Your task to perform on an android device: uninstall "Google Chat" Image 0: 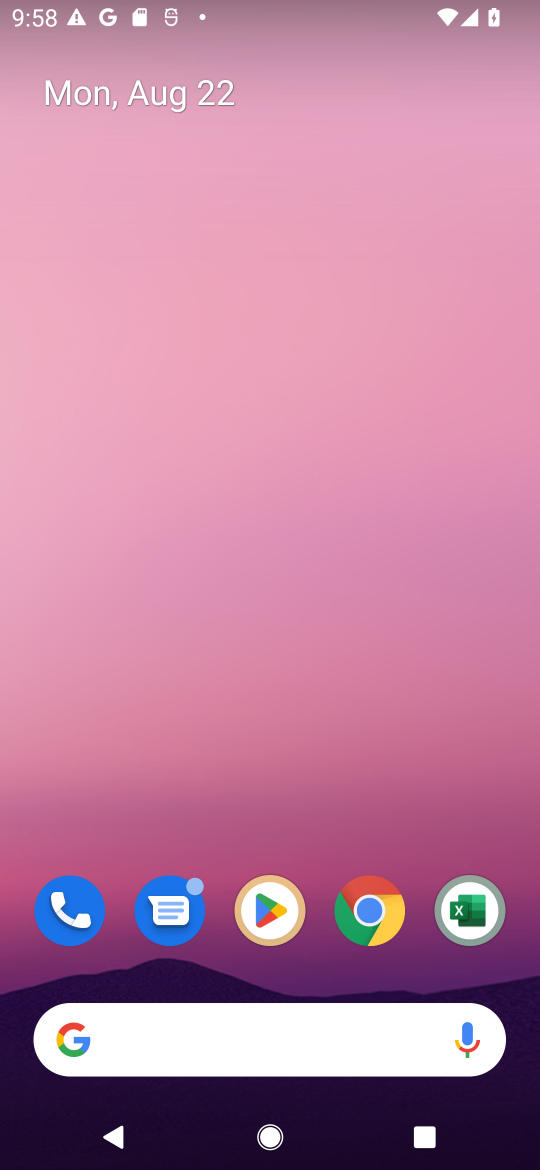
Step 0: click (291, 915)
Your task to perform on an android device: uninstall "Google Chat" Image 1: 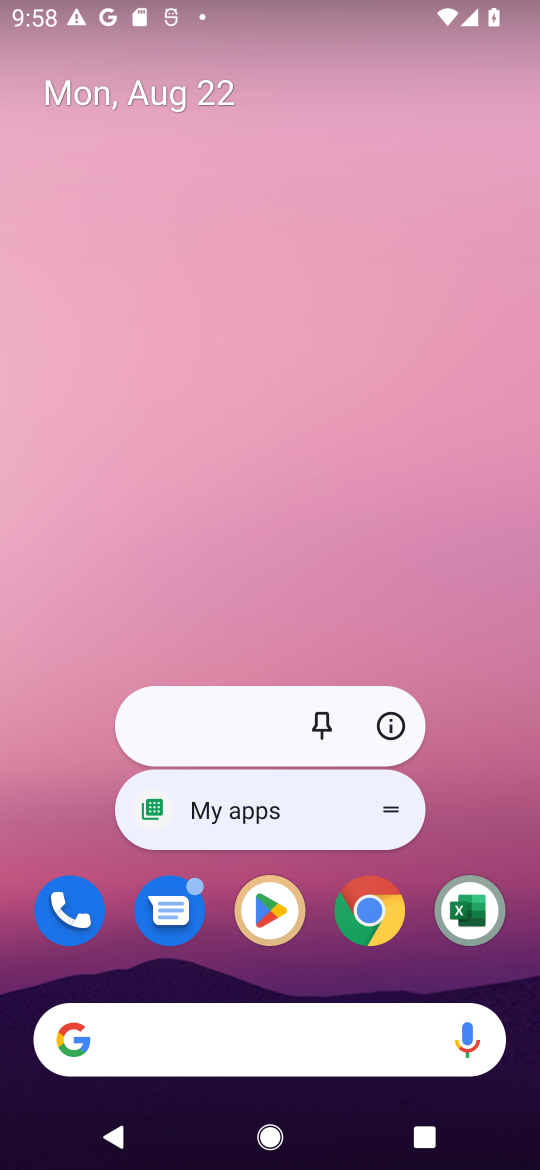
Step 1: click (291, 915)
Your task to perform on an android device: uninstall "Google Chat" Image 2: 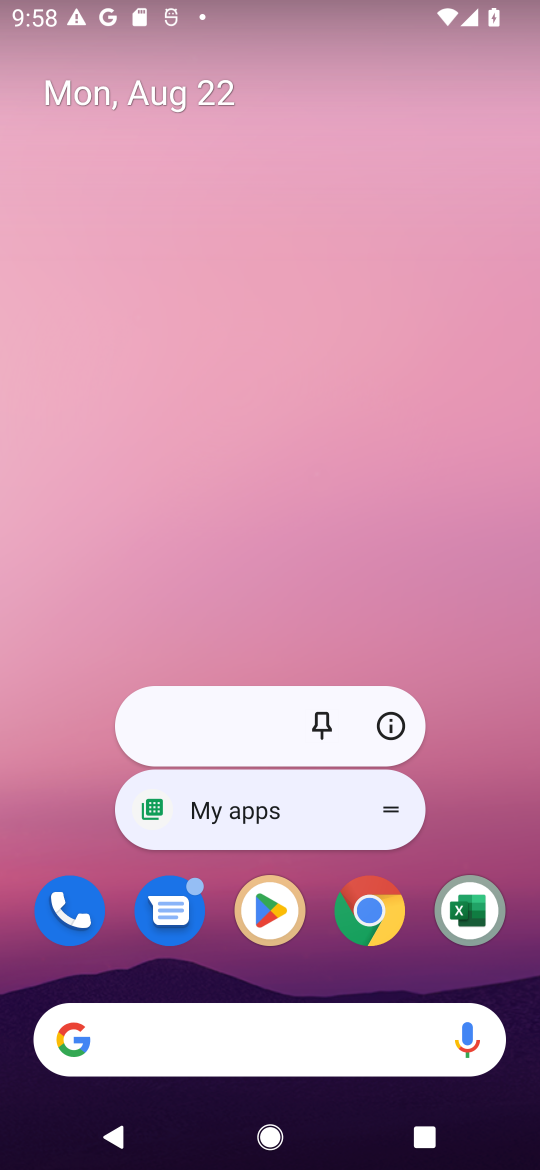
Step 2: click (291, 915)
Your task to perform on an android device: uninstall "Google Chat" Image 3: 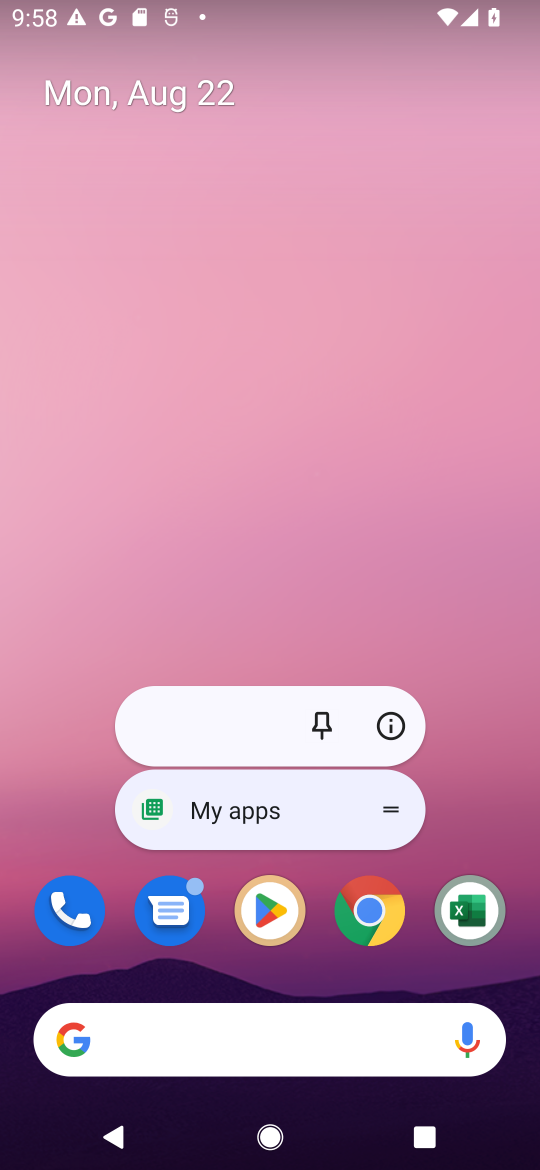
Step 3: click (261, 919)
Your task to perform on an android device: uninstall "Google Chat" Image 4: 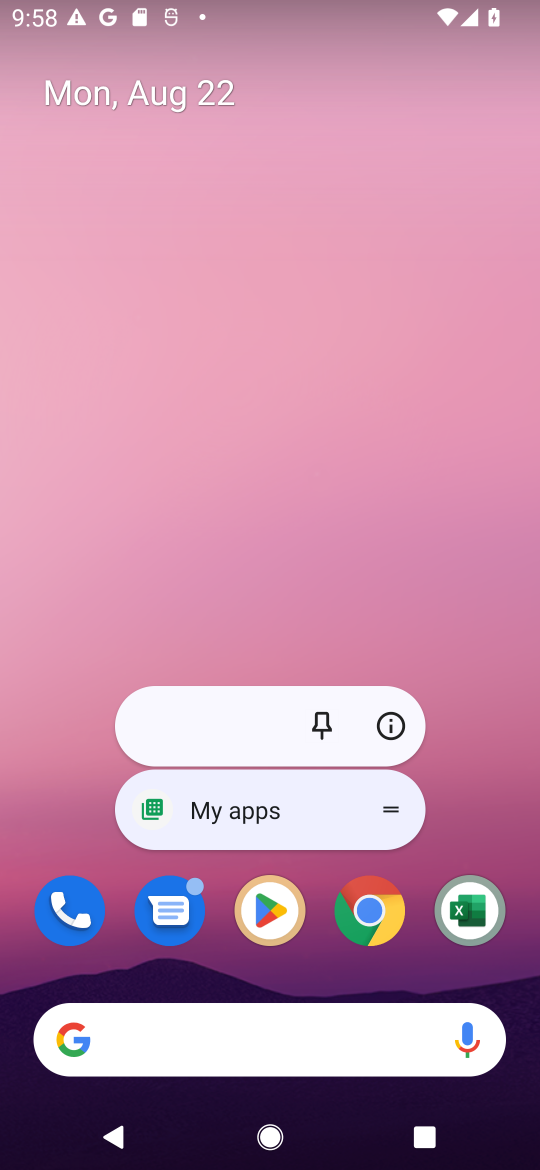
Step 4: click (261, 919)
Your task to perform on an android device: uninstall "Google Chat" Image 5: 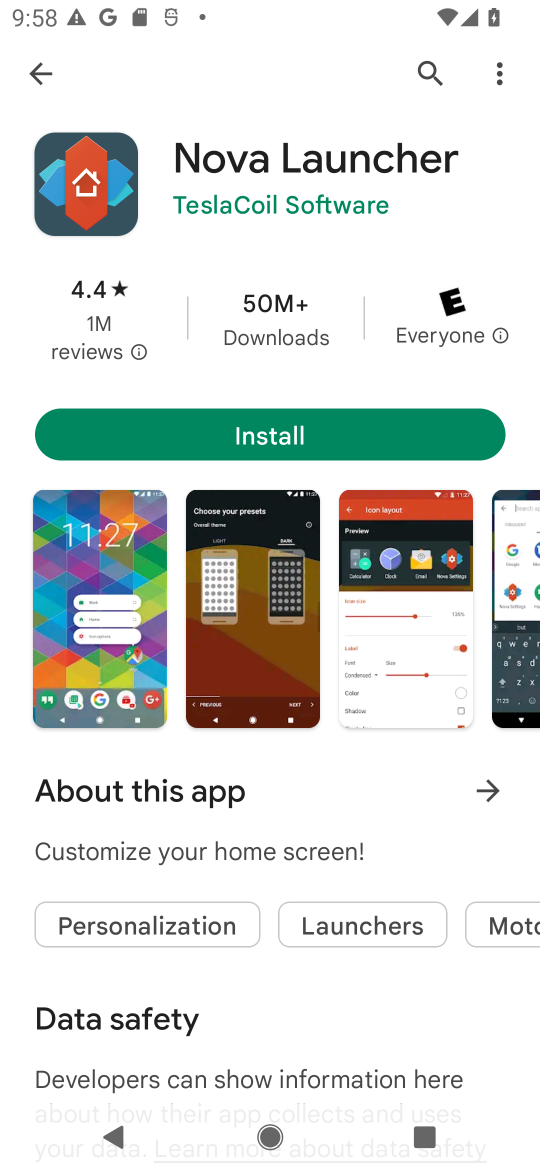
Step 5: click (432, 71)
Your task to perform on an android device: uninstall "Google Chat" Image 6: 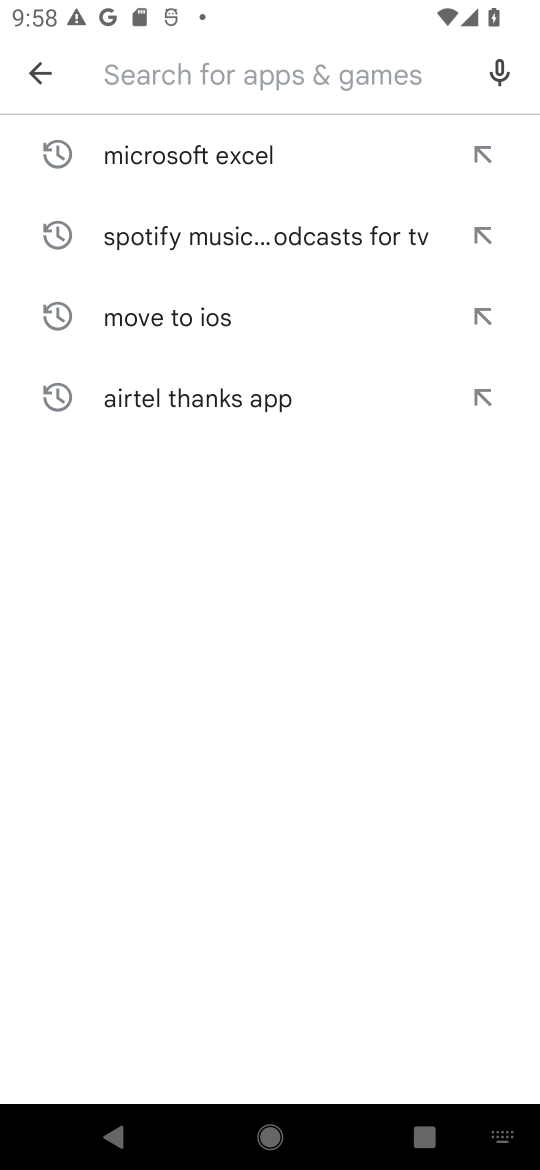
Step 6: type "Google Chat"
Your task to perform on an android device: uninstall "Google Chat" Image 7: 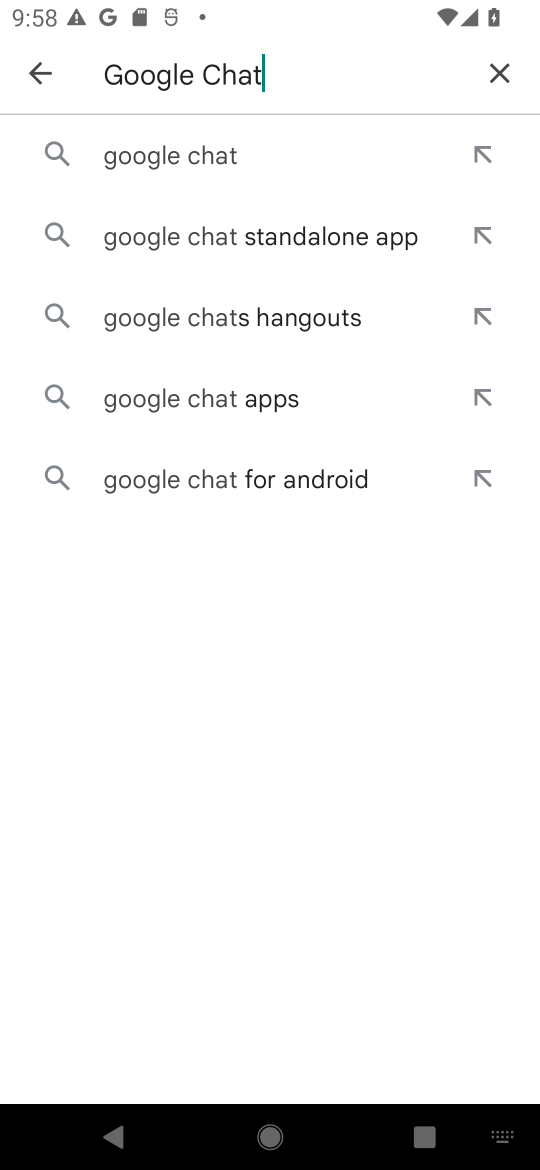
Step 7: click (211, 160)
Your task to perform on an android device: uninstall "Google Chat" Image 8: 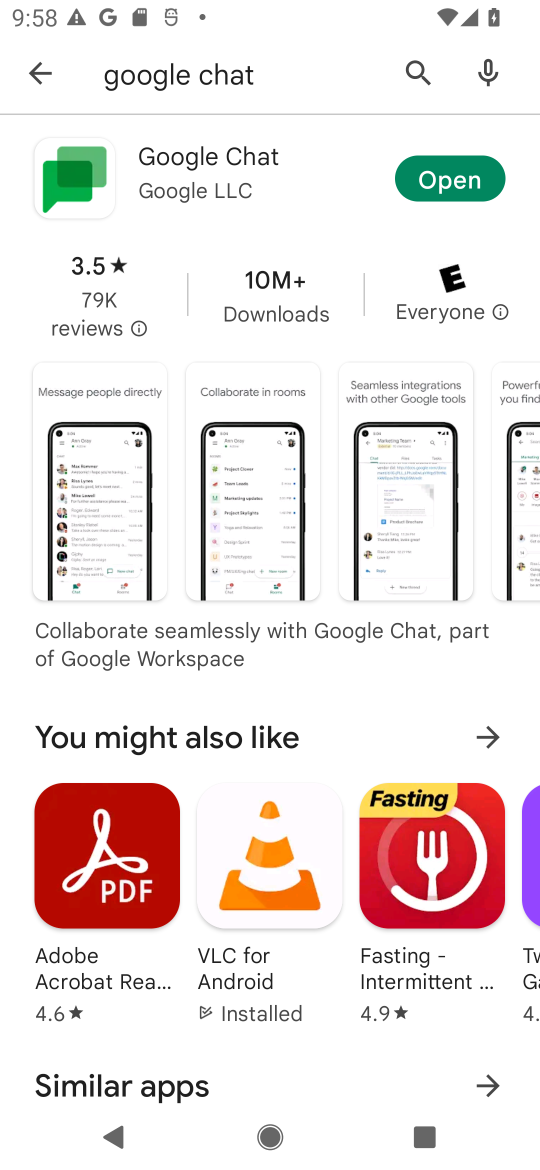
Step 8: click (254, 155)
Your task to perform on an android device: uninstall "Google Chat" Image 9: 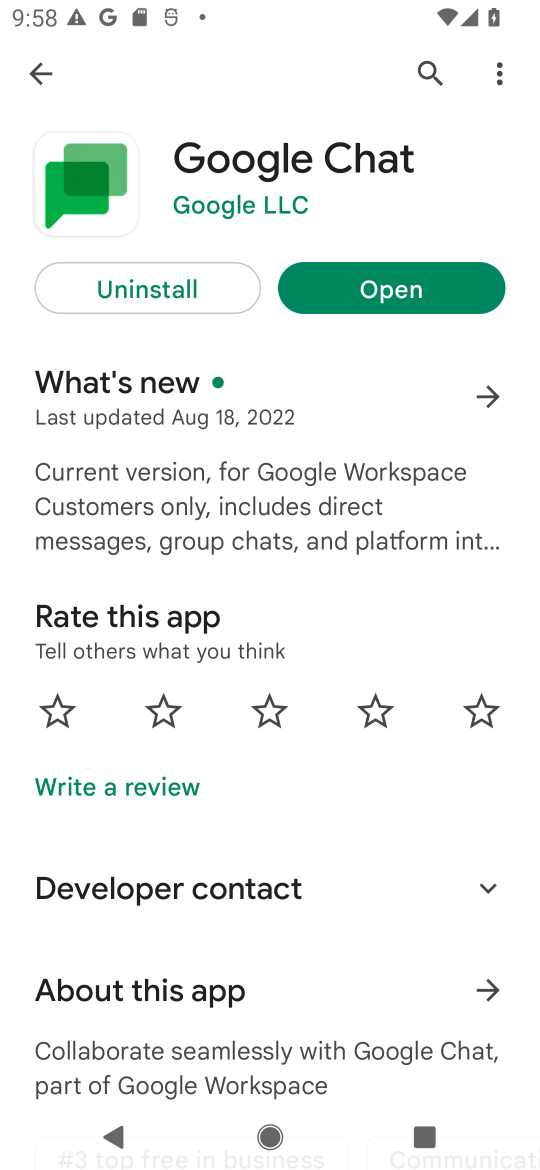
Step 9: click (119, 293)
Your task to perform on an android device: uninstall "Google Chat" Image 10: 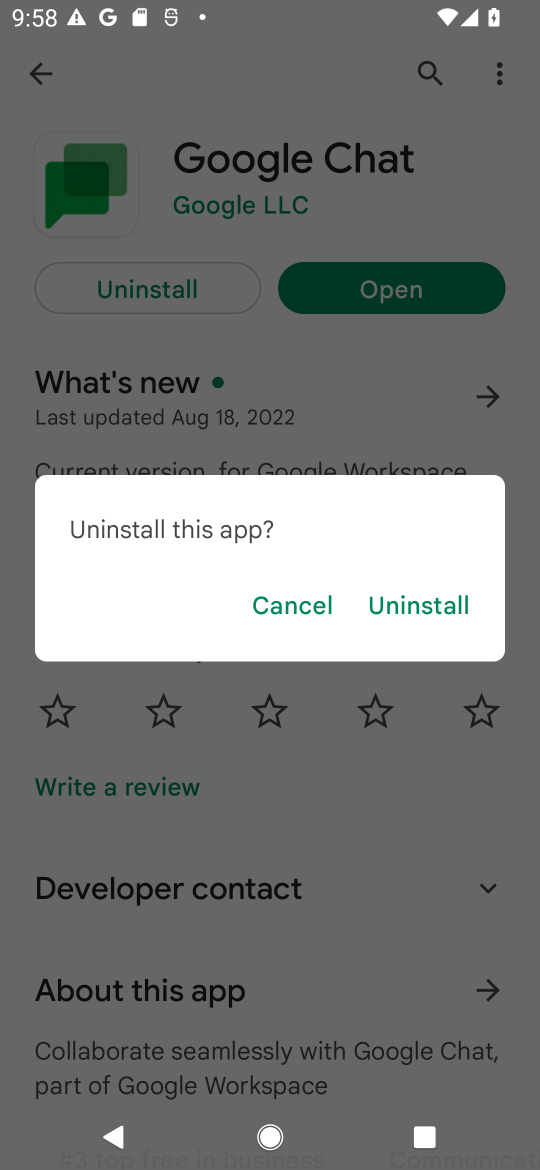
Step 10: click (393, 590)
Your task to perform on an android device: uninstall "Google Chat" Image 11: 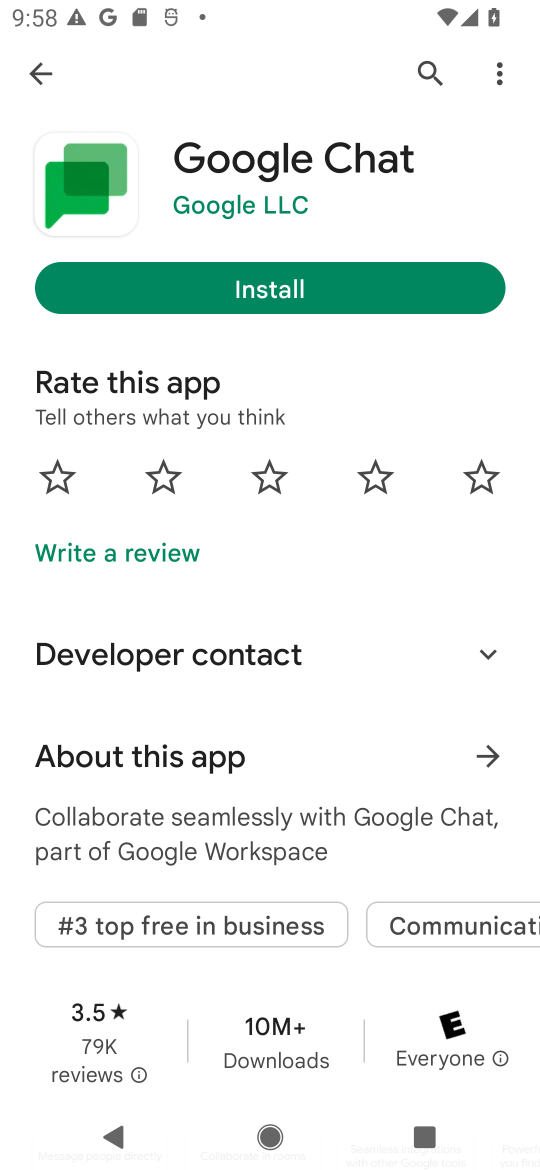
Step 11: task complete